Your task to perform on an android device: toggle notification dots Image 0: 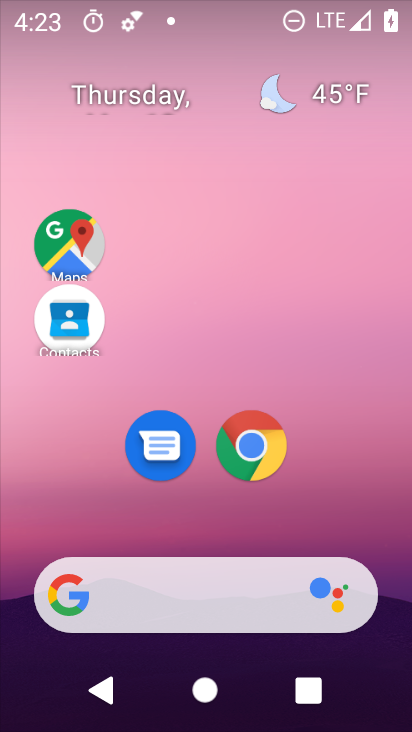
Step 0: drag from (335, 522) to (291, 1)
Your task to perform on an android device: toggle notification dots Image 1: 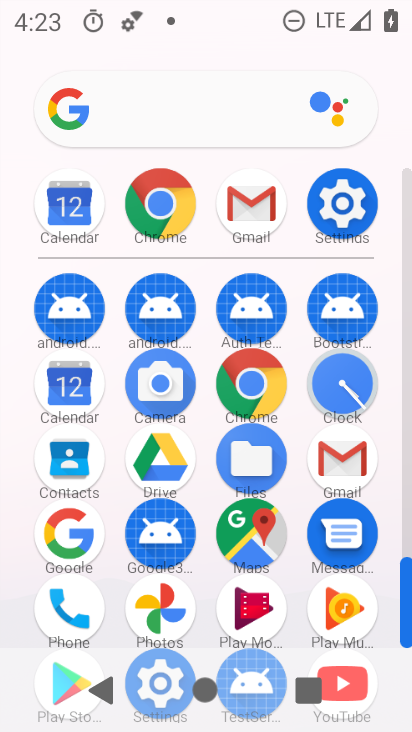
Step 1: click (344, 203)
Your task to perform on an android device: toggle notification dots Image 2: 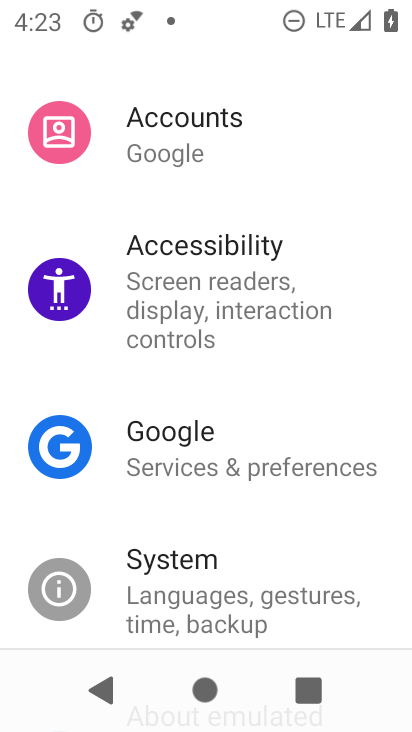
Step 2: drag from (244, 198) to (293, 375)
Your task to perform on an android device: toggle notification dots Image 3: 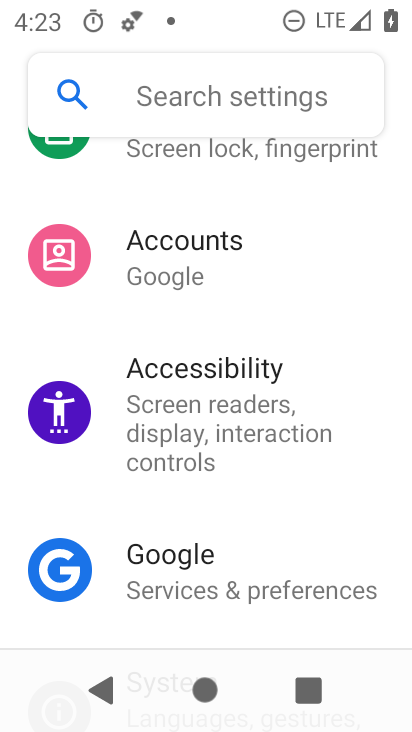
Step 3: drag from (227, 199) to (290, 483)
Your task to perform on an android device: toggle notification dots Image 4: 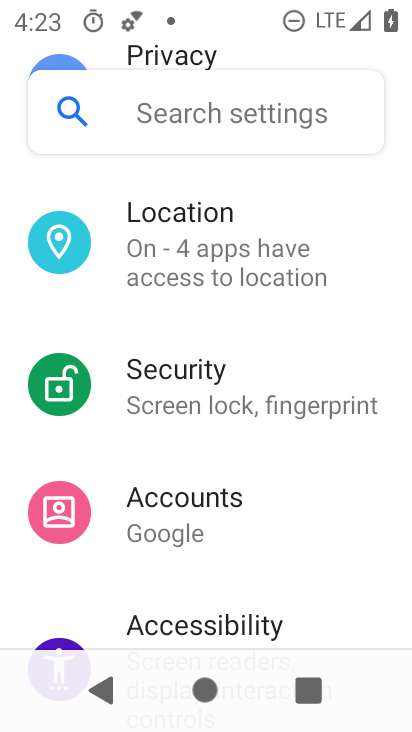
Step 4: drag from (268, 331) to (319, 511)
Your task to perform on an android device: toggle notification dots Image 5: 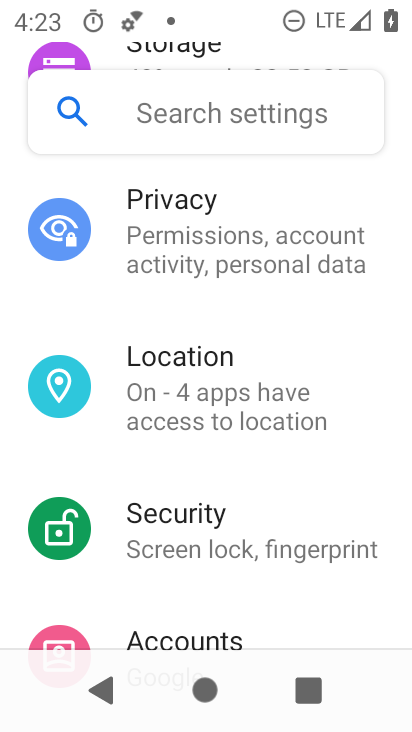
Step 5: drag from (254, 325) to (289, 480)
Your task to perform on an android device: toggle notification dots Image 6: 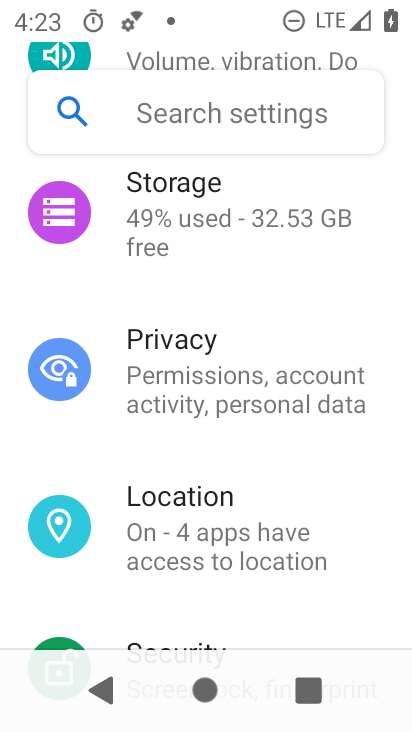
Step 6: drag from (276, 277) to (326, 473)
Your task to perform on an android device: toggle notification dots Image 7: 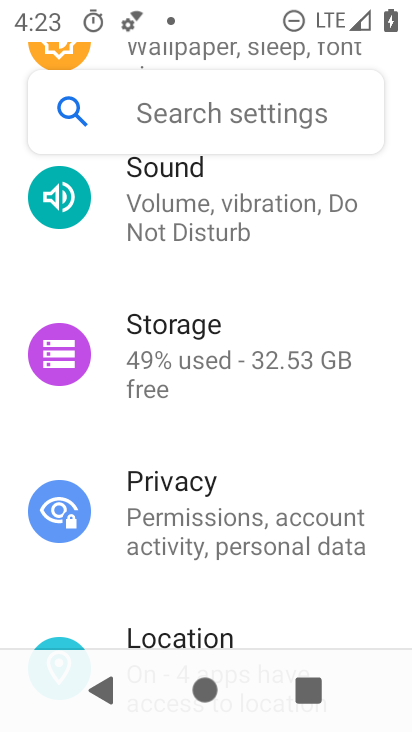
Step 7: drag from (254, 278) to (298, 462)
Your task to perform on an android device: toggle notification dots Image 8: 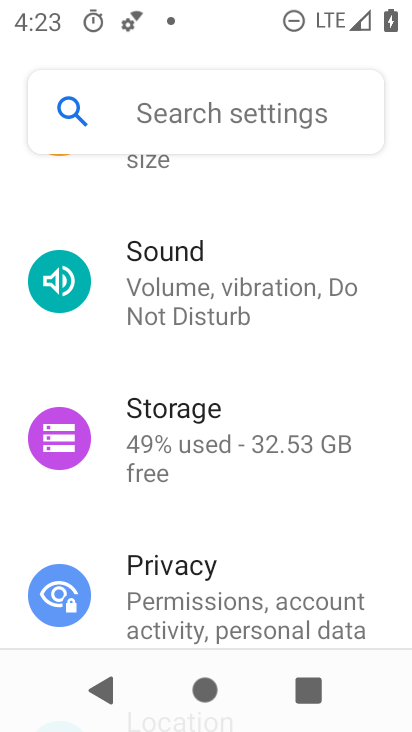
Step 8: drag from (239, 196) to (300, 402)
Your task to perform on an android device: toggle notification dots Image 9: 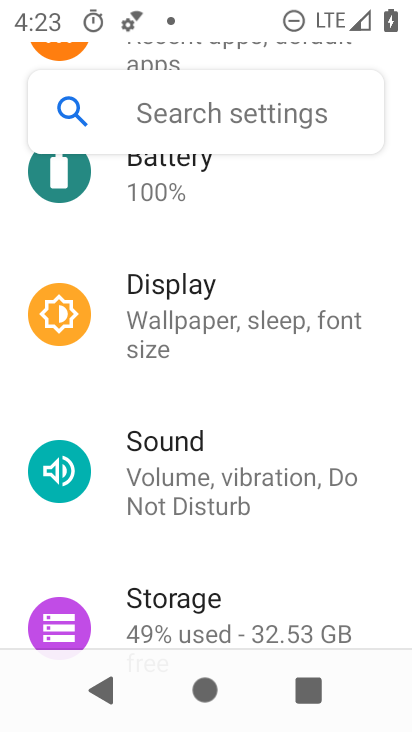
Step 9: drag from (249, 235) to (324, 472)
Your task to perform on an android device: toggle notification dots Image 10: 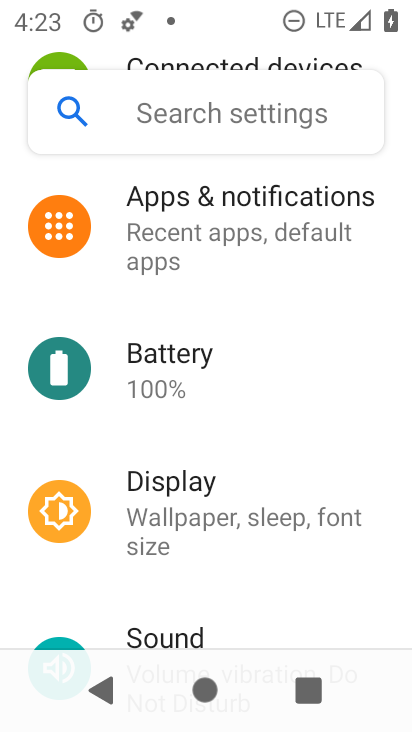
Step 10: drag from (250, 282) to (319, 438)
Your task to perform on an android device: toggle notification dots Image 11: 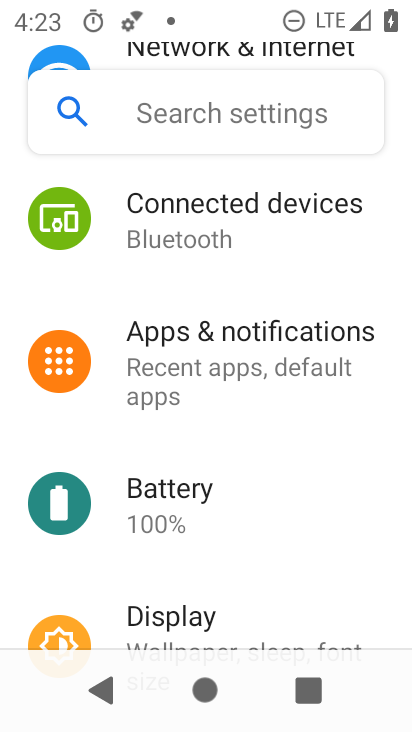
Step 11: click (285, 329)
Your task to perform on an android device: toggle notification dots Image 12: 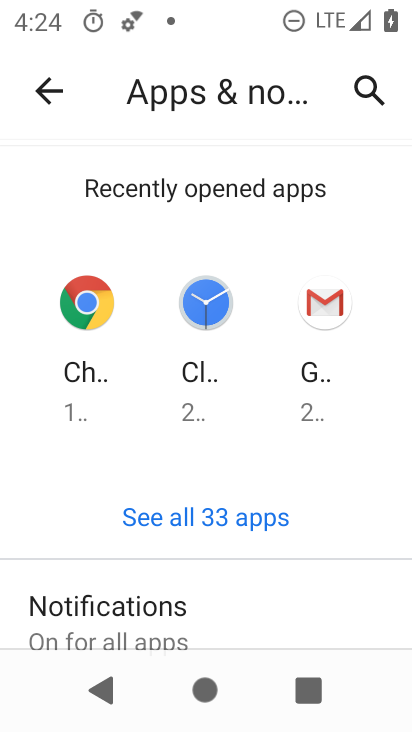
Step 12: click (125, 608)
Your task to perform on an android device: toggle notification dots Image 13: 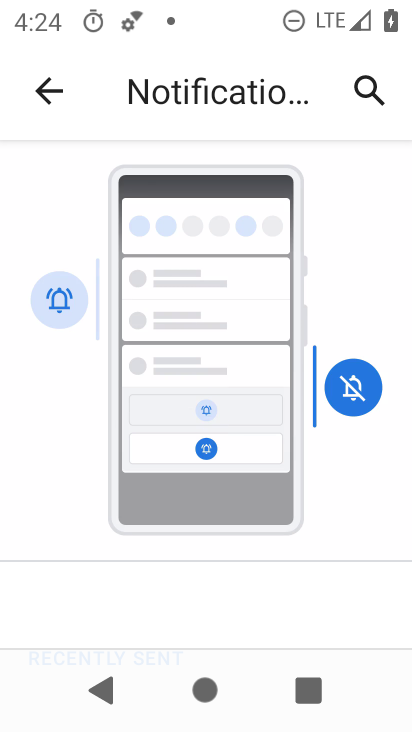
Step 13: drag from (243, 586) to (291, 337)
Your task to perform on an android device: toggle notification dots Image 14: 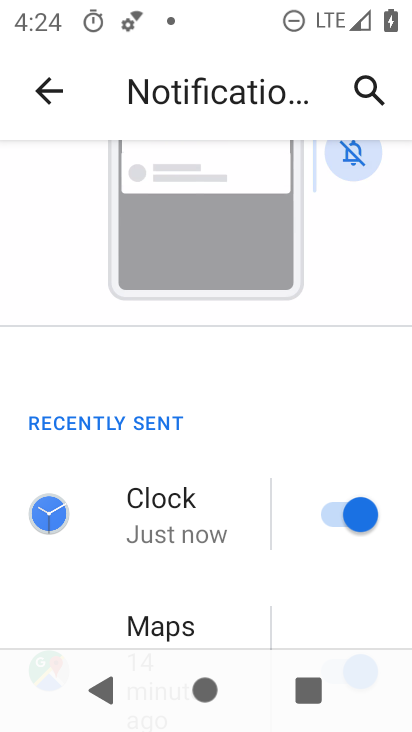
Step 14: drag from (202, 582) to (267, 338)
Your task to perform on an android device: toggle notification dots Image 15: 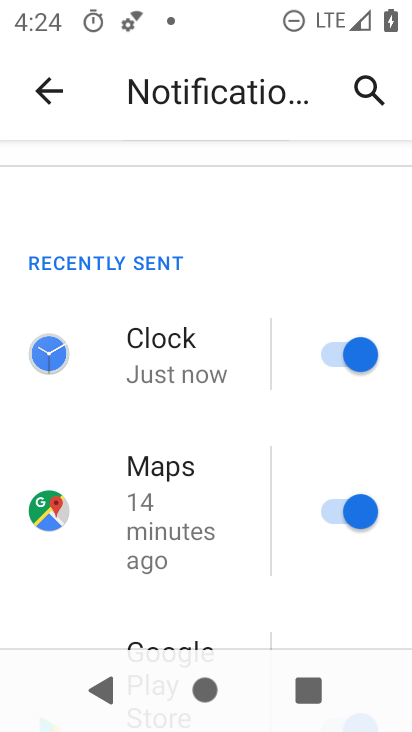
Step 15: drag from (192, 582) to (231, 310)
Your task to perform on an android device: toggle notification dots Image 16: 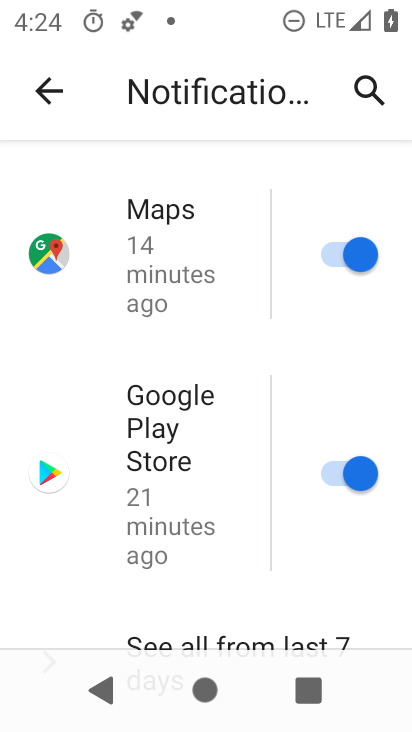
Step 16: drag from (201, 559) to (263, 323)
Your task to perform on an android device: toggle notification dots Image 17: 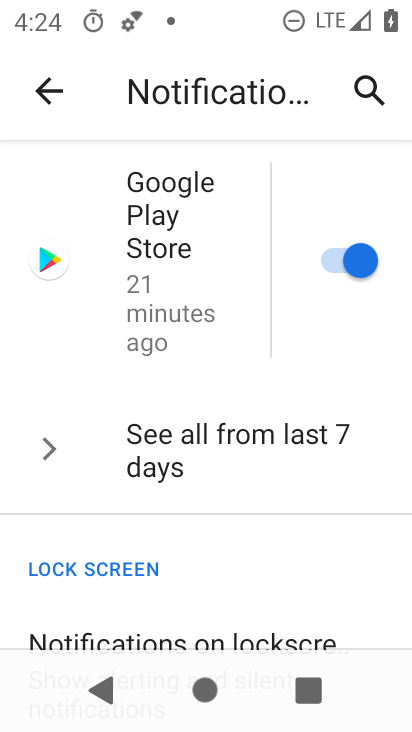
Step 17: drag from (206, 558) to (267, 407)
Your task to perform on an android device: toggle notification dots Image 18: 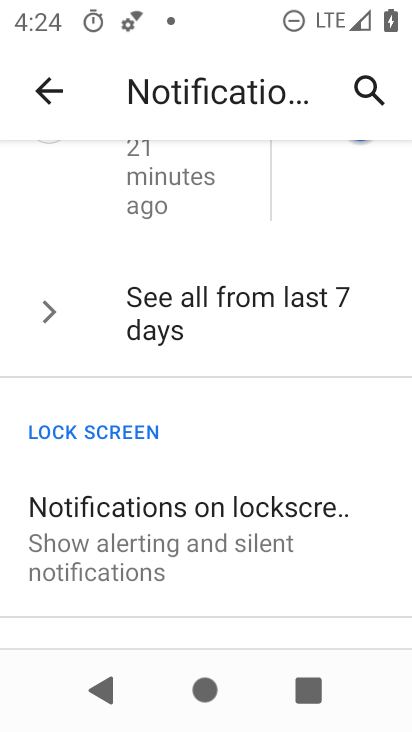
Step 18: drag from (193, 609) to (304, 445)
Your task to perform on an android device: toggle notification dots Image 19: 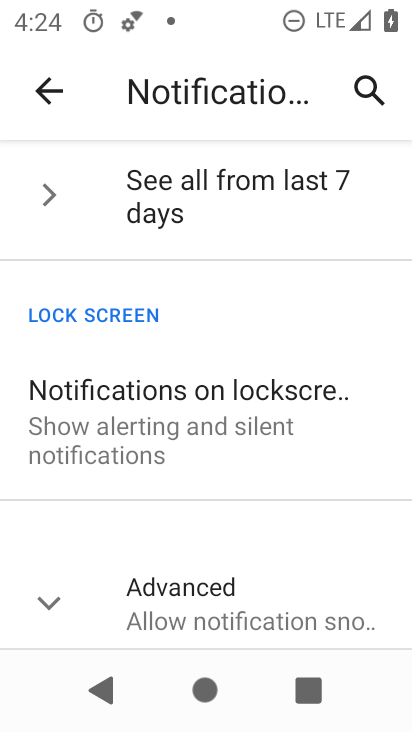
Step 19: click (214, 600)
Your task to perform on an android device: toggle notification dots Image 20: 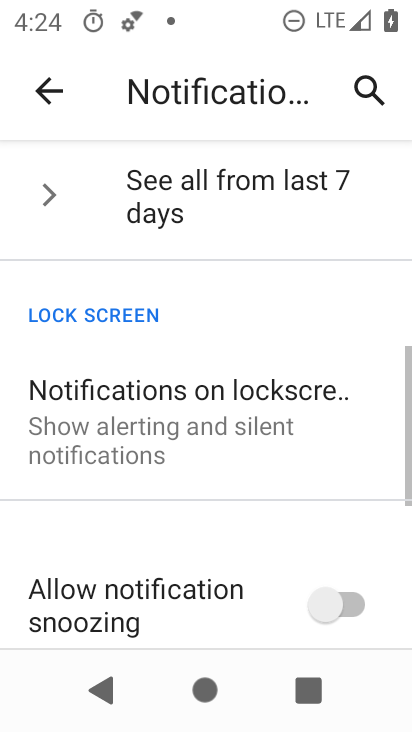
Step 20: drag from (227, 554) to (298, 379)
Your task to perform on an android device: toggle notification dots Image 21: 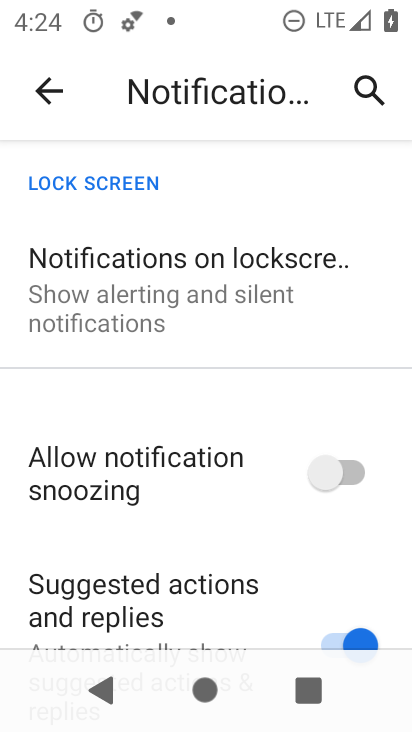
Step 21: drag from (198, 530) to (297, 356)
Your task to perform on an android device: toggle notification dots Image 22: 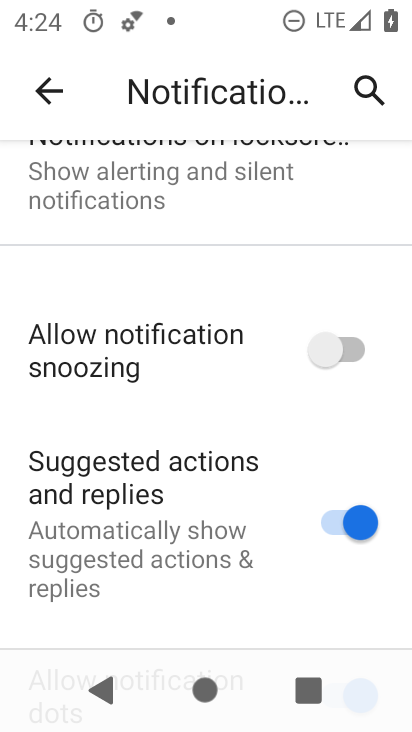
Step 22: drag from (117, 610) to (228, 341)
Your task to perform on an android device: toggle notification dots Image 23: 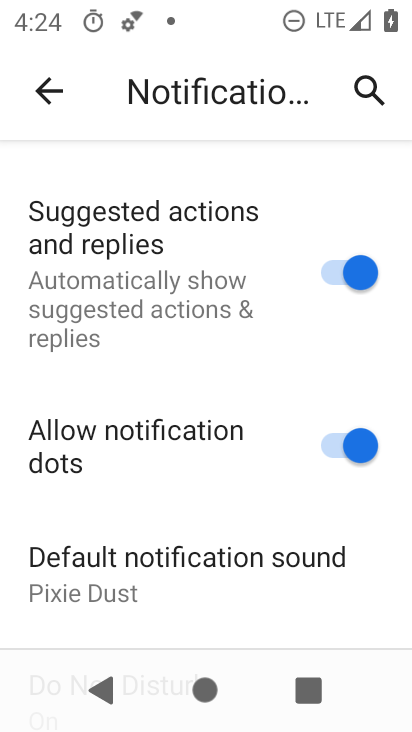
Step 23: click (362, 450)
Your task to perform on an android device: toggle notification dots Image 24: 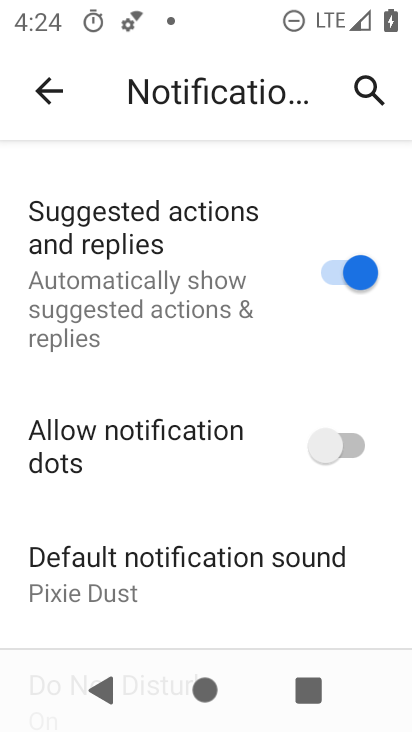
Step 24: task complete